Your task to perform on an android device: Search for good pizza restaurants on Maps Image 0: 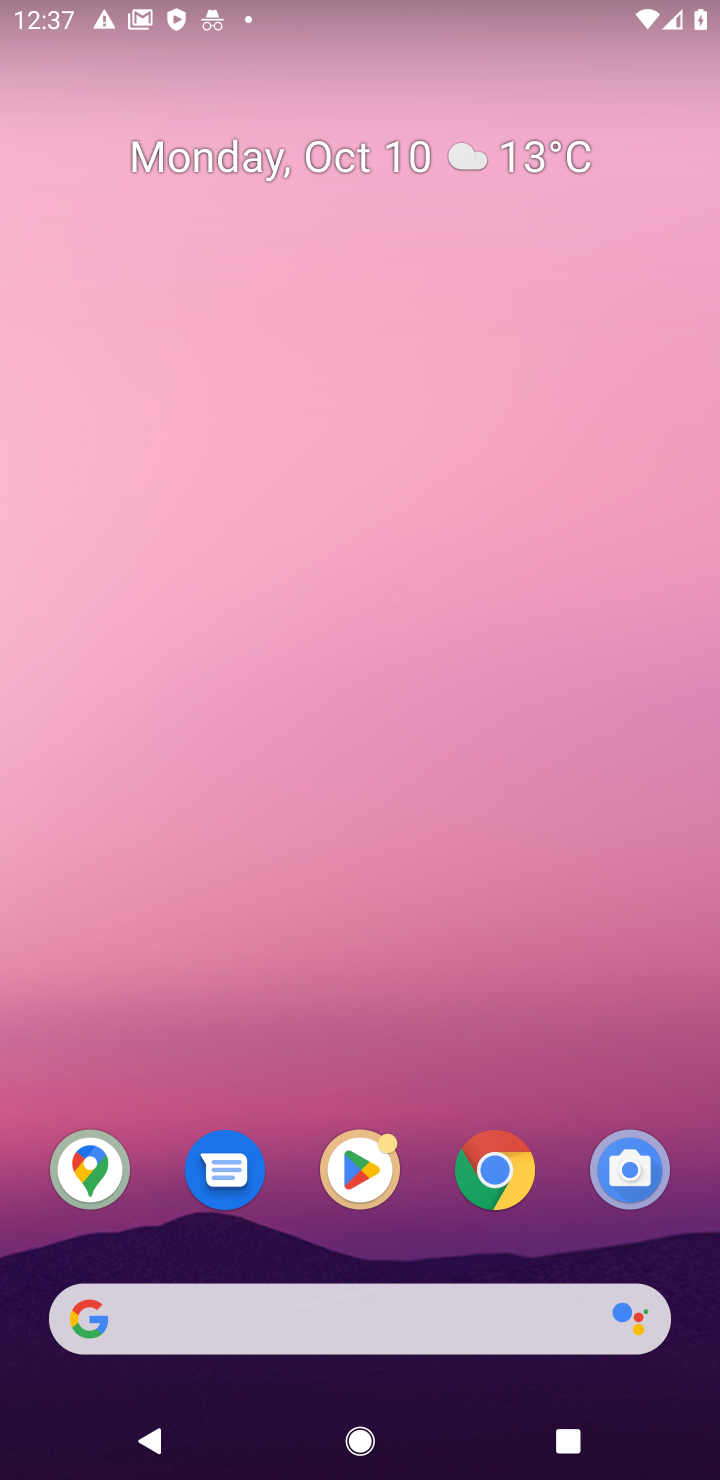
Step 0: click (80, 1166)
Your task to perform on an android device: Search for good pizza restaurants on Maps Image 1: 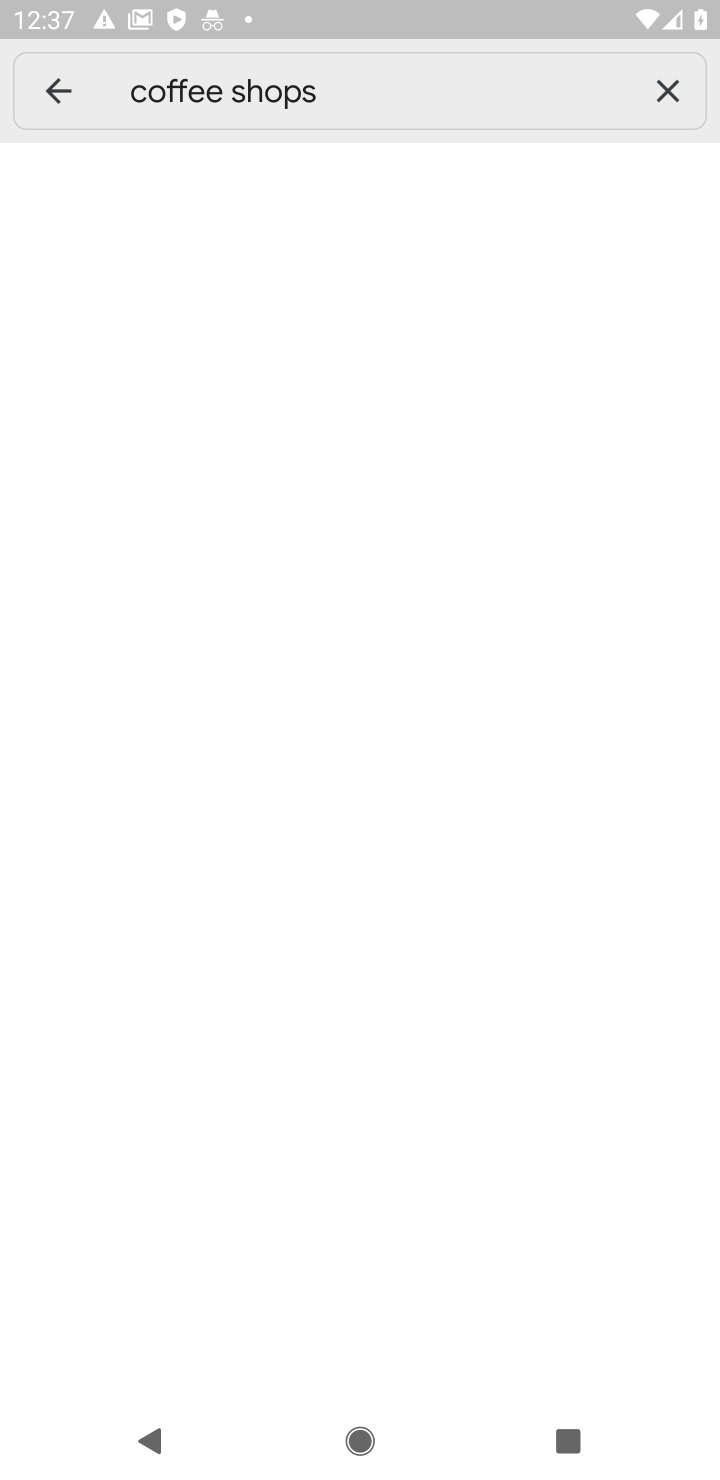
Step 1: press back button
Your task to perform on an android device: Search for good pizza restaurants on Maps Image 2: 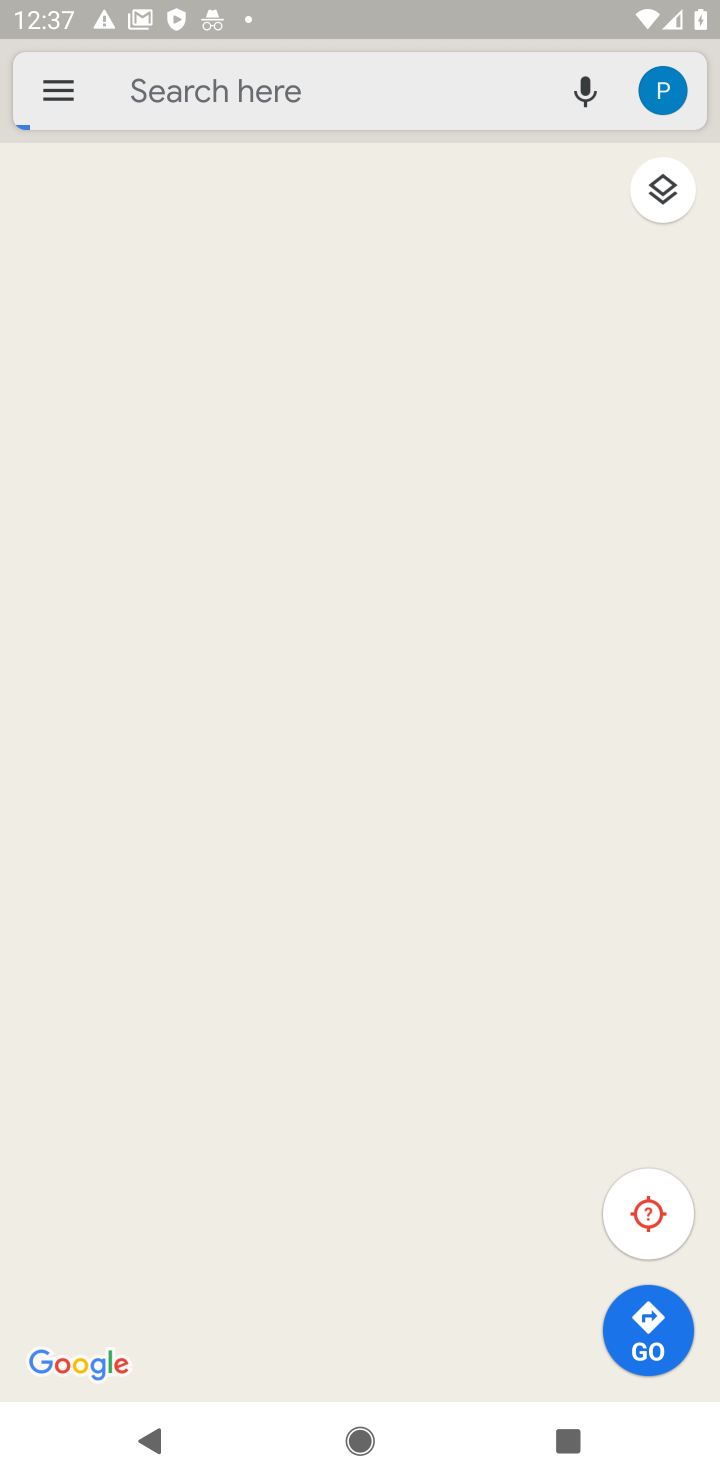
Step 2: click (426, 102)
Your task to perform on an android device: Search for good pizza restaurants on Maps Image 3: 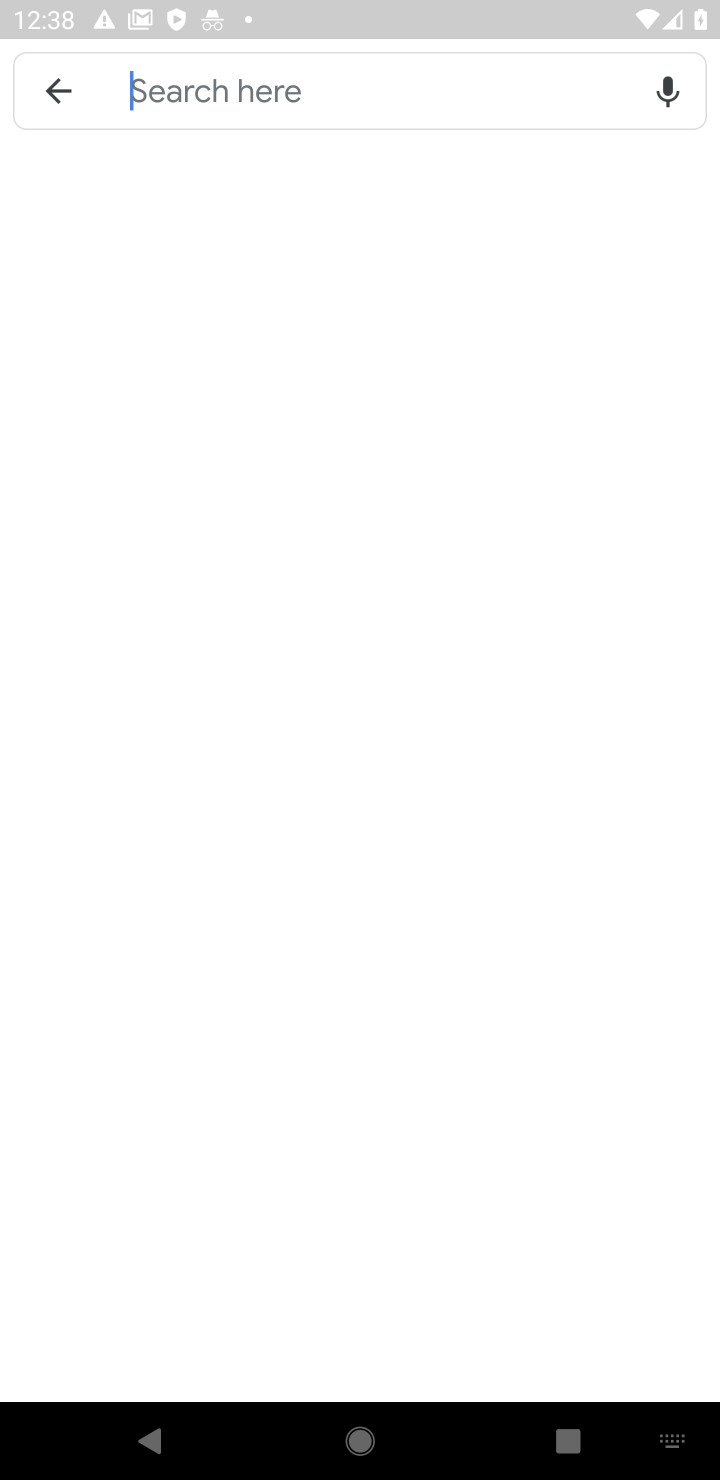
Step 3: type "good pizza restaurants"
Your task to perform on an android device: Search for good pizza restaurants on Maps Image 4: 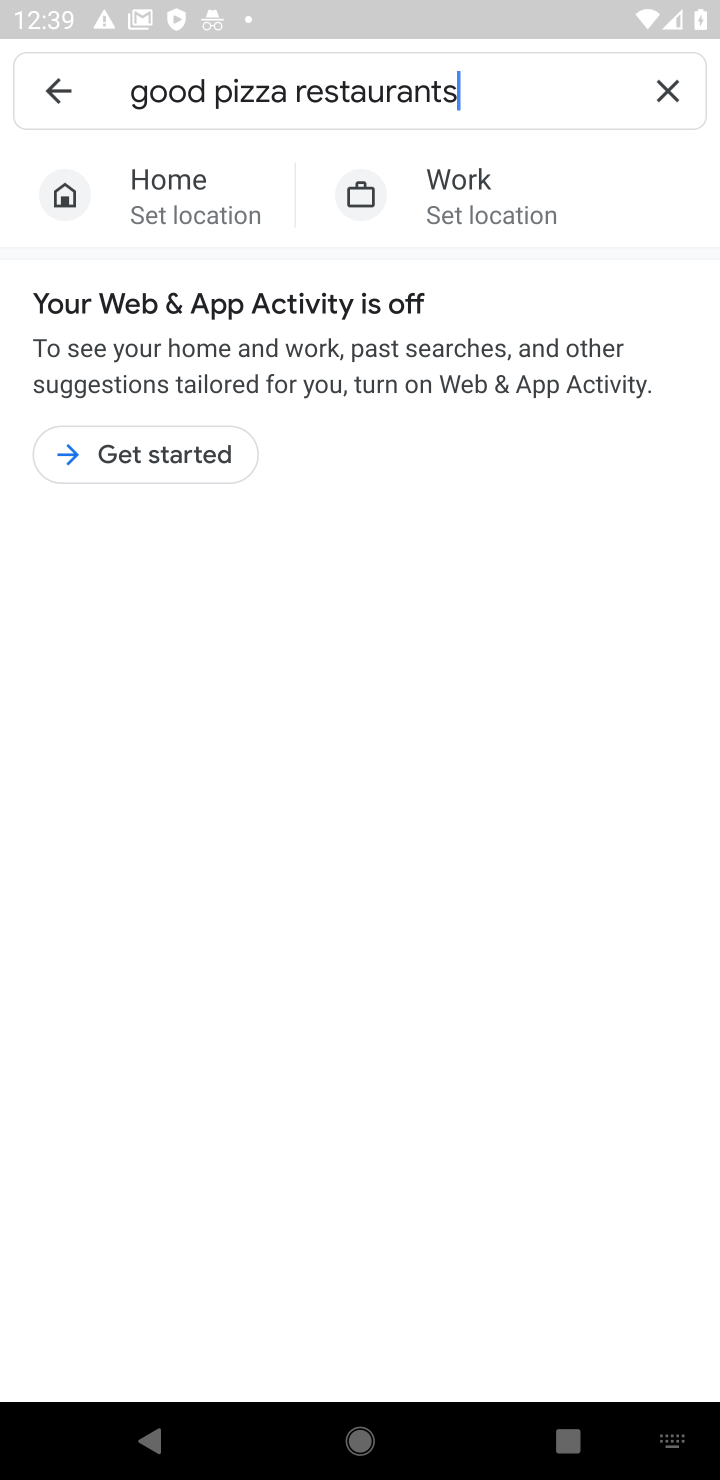
Step 4: task complete